Your task to perform on an android device: turn on showing notifications on the lock screen Image 0: 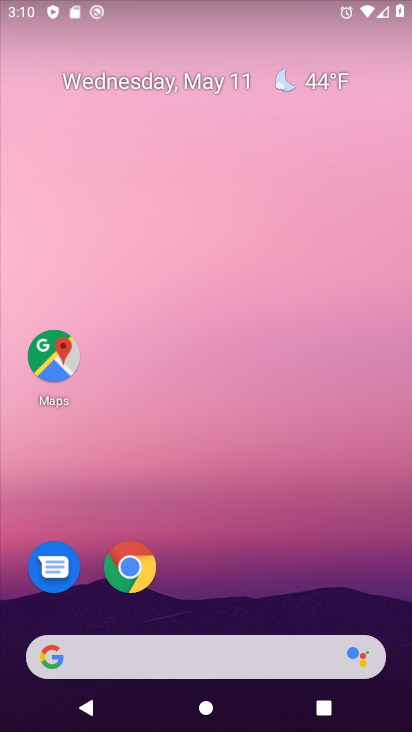
Step 0: drag from (231, 531) to (227, 56)
Your task to perform on an android device: turn on showing notifications on the lock screen Image 1: 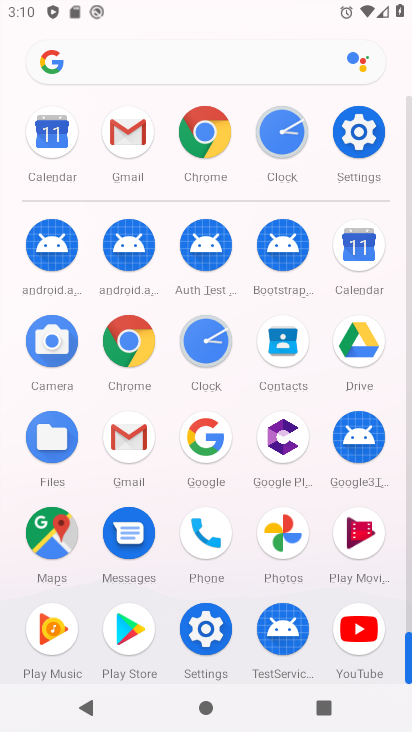
Step 1: drag from (12, 549) to (4, 128)
Your task to perform on an android device: turn on showing notifications on the lock screen Image 2: 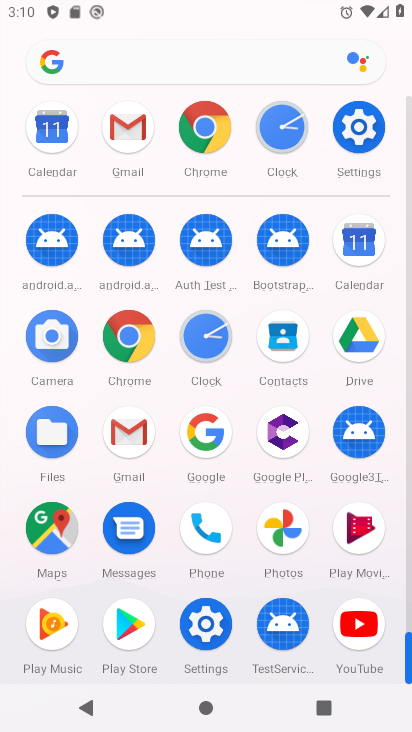
Step 2: drag from (17, 639) to (24, 263)
Your task to perform on an android device: turn on showing notifications on the lock screen Image 3: 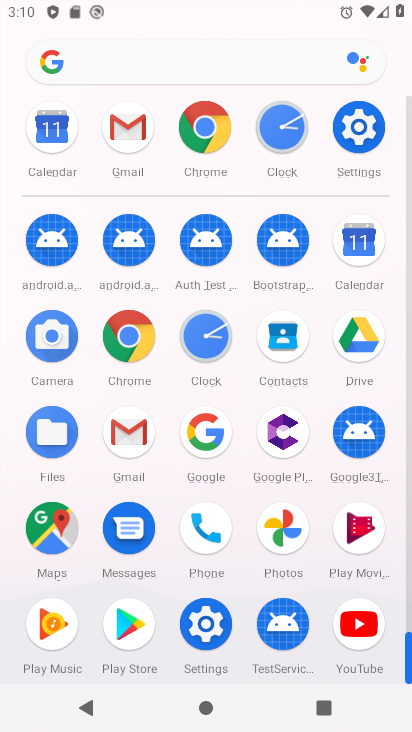
Step 3: drag from (7, 552) to (7, 344)
Your task to perform on an android device: turn on showing notifications on the lock screen Image 4: 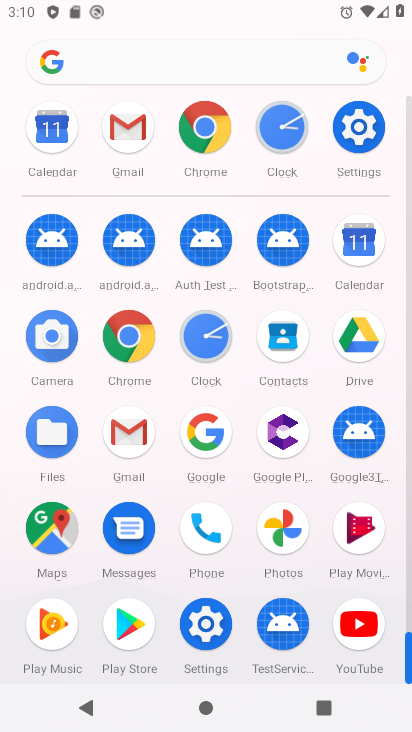
Step 4: click (197, 628)
Your task to perform on an android device: turn on showing notifications on the lock screen Image 5: 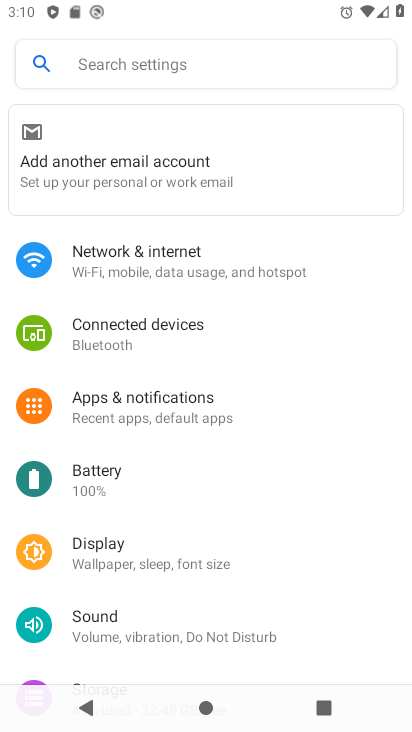
Step 5: drag from (269, 518) to (273, 190)
Your task to perform on an android device: turn on showing notifications on the lock screen Image 6: 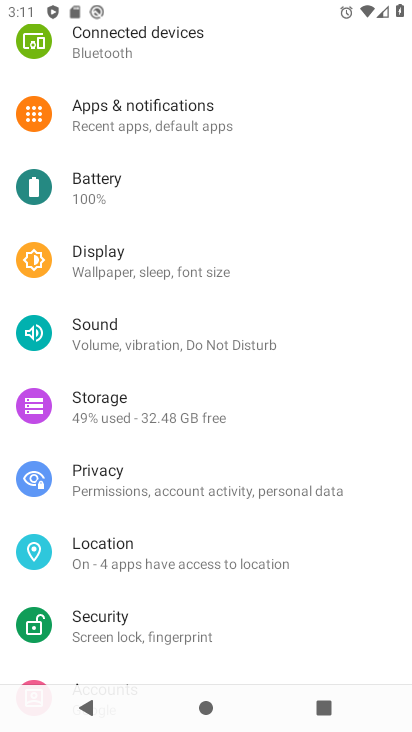
Step 6: drag from (277, 485) to (296, 185)
Your task to perform on an android device: turn on showing notifications on the lock screen Image 7: 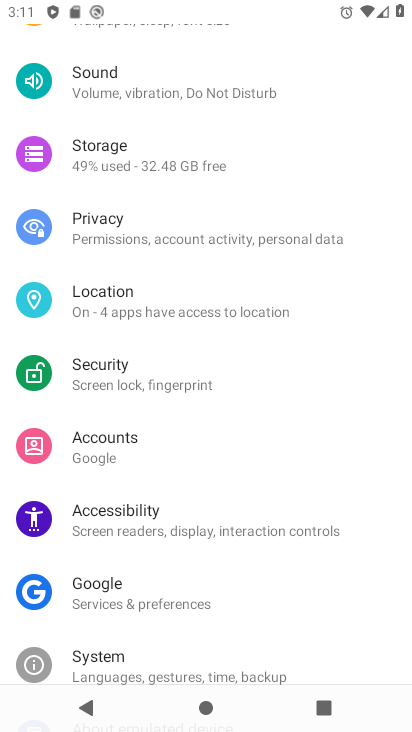
Step 7: drag from (271, 531) to (267, 163)
Your task to perform on an android device: turn on showing notifications on the lock screen Image 8: 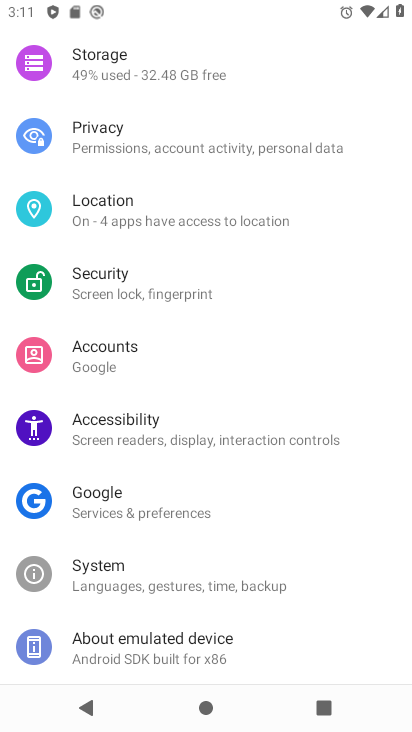
Step 8: drag from (278, 189) to (272, 672)
Your task to perform on an android device: turn on showing notifications on the lock screen Image 9: 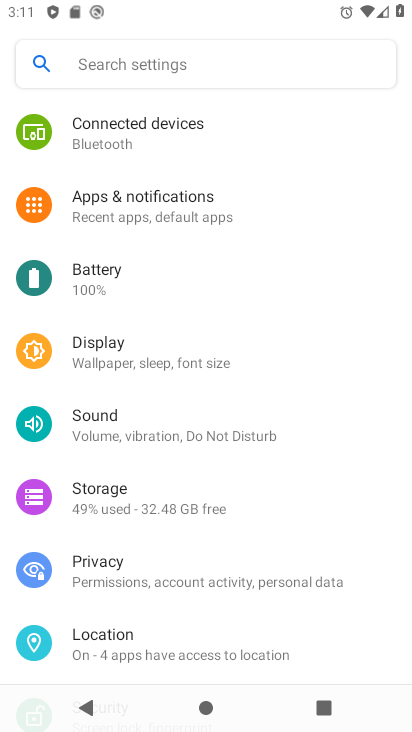
Step 9: click (189, 205)
Your task to perform on an android device: turn on showing notifications on the lock screen Image 10: 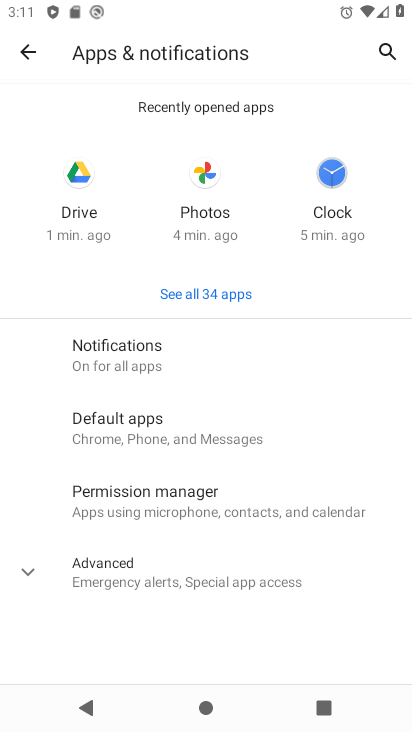
Step 10: click (24, 574)
Your task to perform on an android device: turn on showing notifications on the lock screen Image 11: 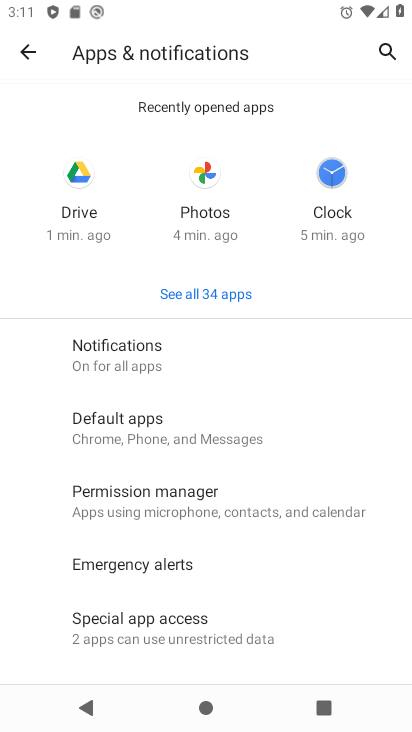
Step 11: drag from (297, 544) to (294, 380)
Your task to perform on an android device: turn on showing notifications on the lock screen Image 12: 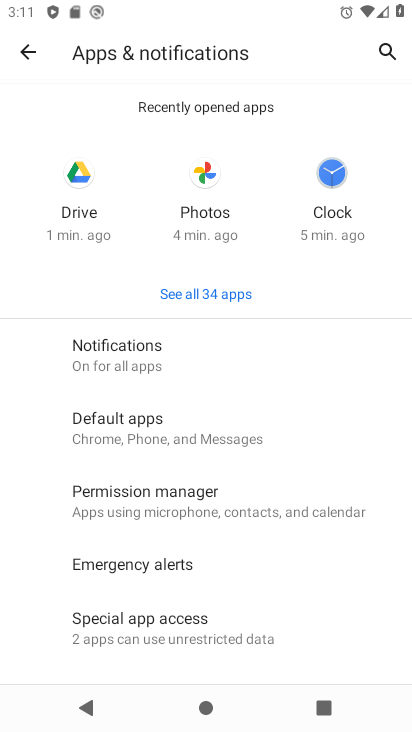
Step 12: click (170, 348)
Your task to perform on an android device: turn on showing notifications on the lock screen Image 13: 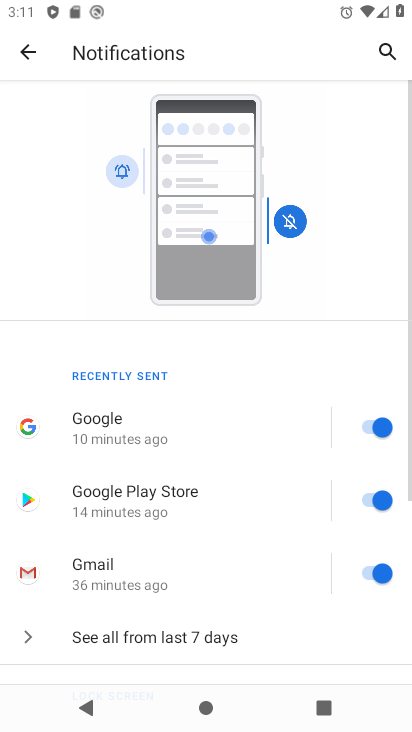
Step 13: drag from (219, 582) to (236, 135)
Your task to perform on an android device: turn on showing notifications on the lock screen Image 14: 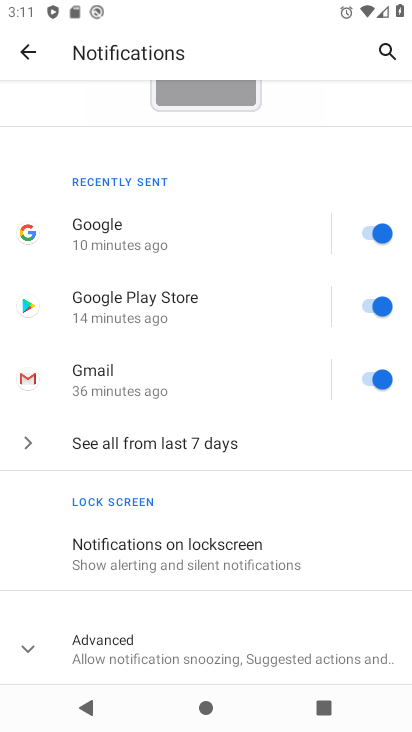
Step 14: click (193, 546)
Your task to perform on an android device: turn on showing notifications on the lock screen Image 15: 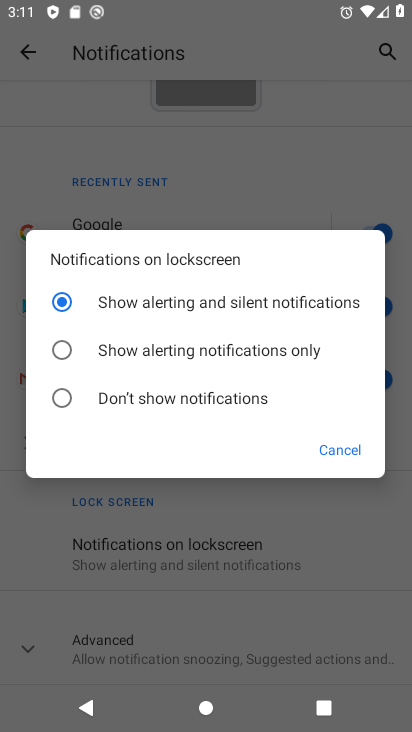
Step 15: click (124, 312)
Your task to perform on an android device: turn on showing notifications on the lock screen Image 16: 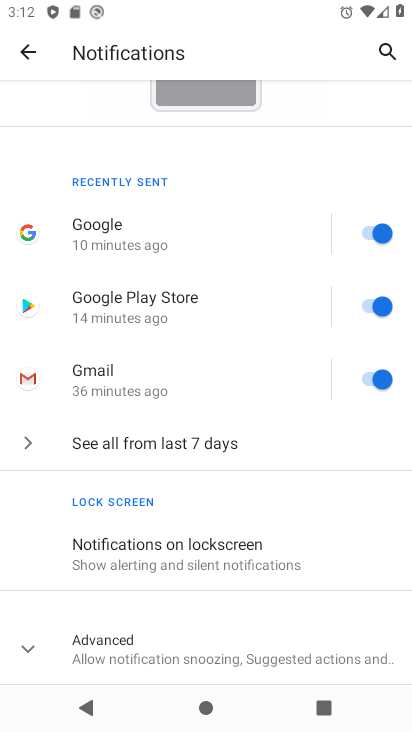
Step 16: task complete